Your task to perform on an android device: Show me productivity apps on the Play Store Image 0: 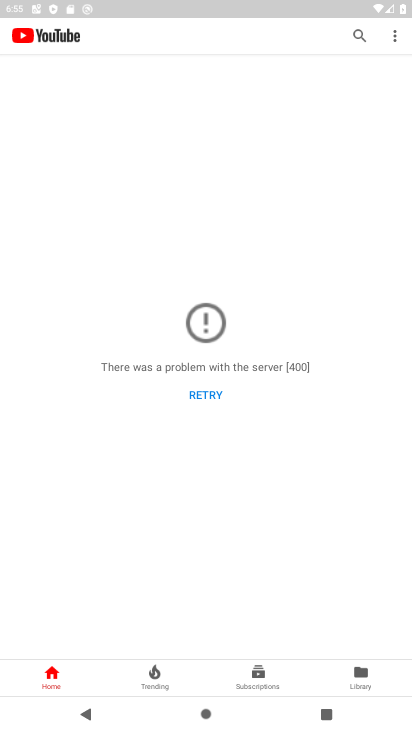
Step 0: press home button
Your task to perform on an android device: Show me productivity apps on the Play Store Image 1: 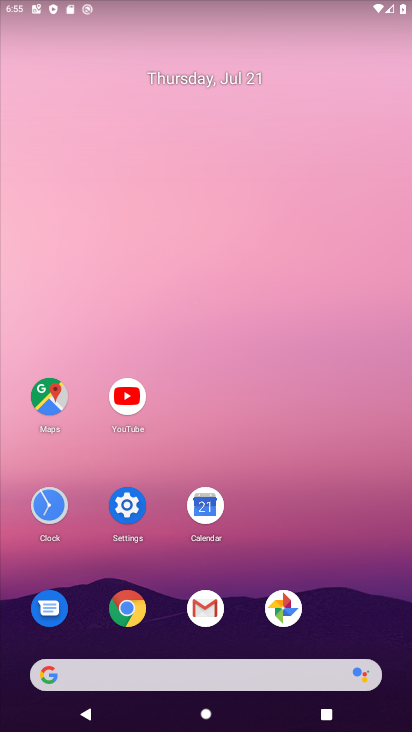
Step 1: drag from (327, 601) to (292, 332)
Your task to perform on an android device: Show me productivity apps on the Play Store Image 2: 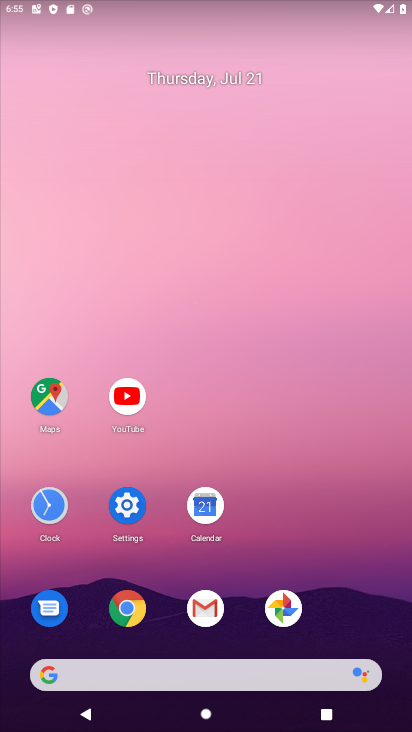
Step 2: drag from (289, 501) to (257, 6)
Your task to perform on an android device: Show me productivity apps on the Play Store Image 3: 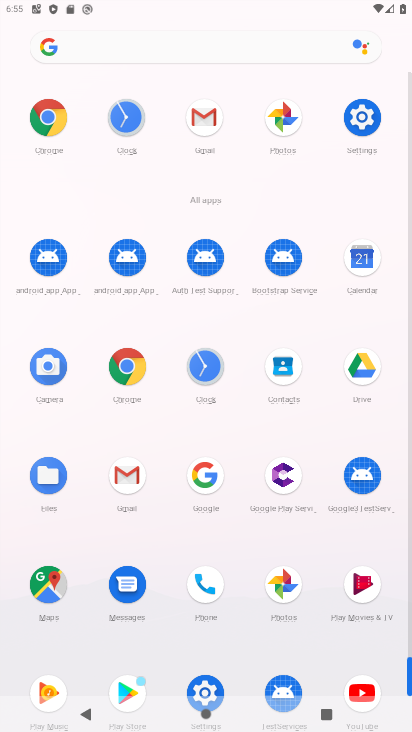
Step 3: click (132, 681)
Your task to perform on an android device: Show me productivity apps on the Play Store Image 4: 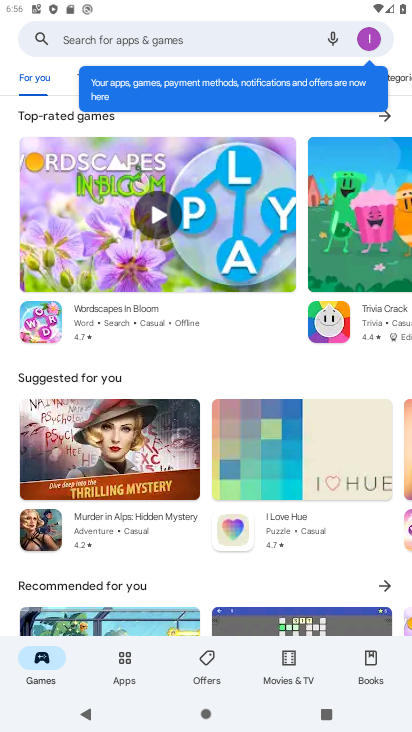
Step 4: click (124, 661)
Your task to perform on an android device: Show me productivity apps on the Play Store Image 5: 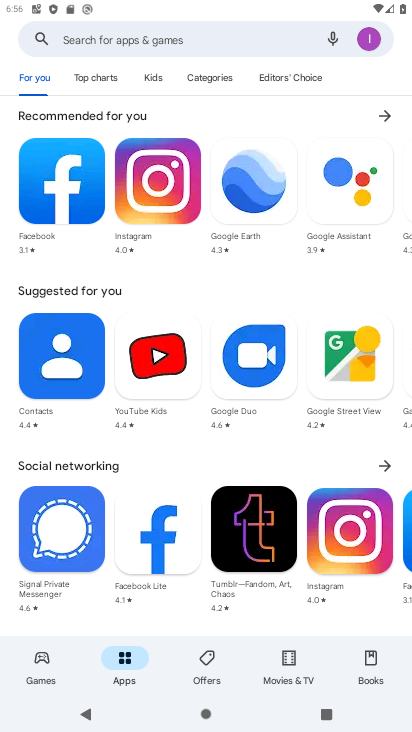
Step 5: task complete